Your task to perform on an android device: open app "Yahoo Mail" (install if not already installed) Image 0: 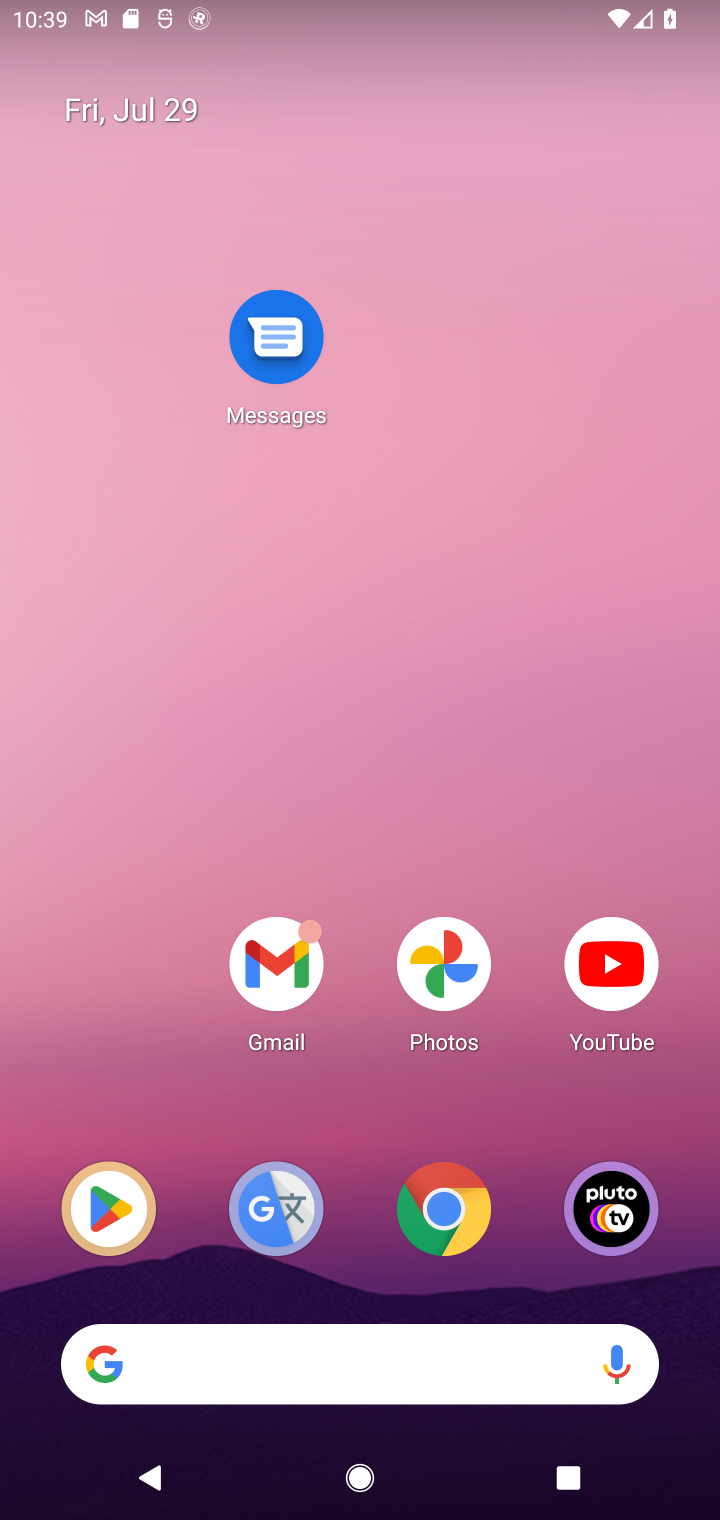
Step 0: drag from (348, 1369) to (553, 131)
Your task to perform on an android device: open app "Yahoo Mail" (install if not already installed) Image 1: 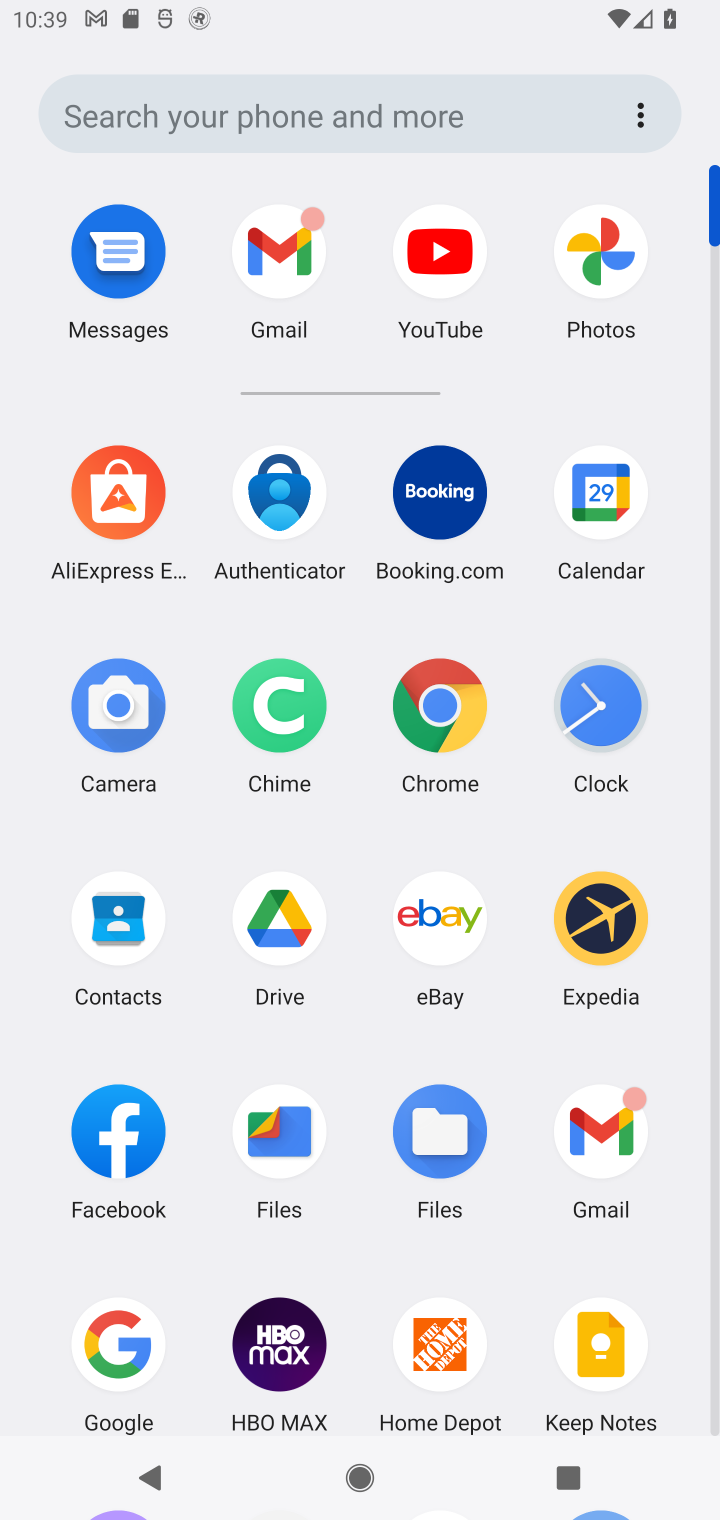
Step 1: drag from (361, 1194) to (425, 253)
Your task to perform on an android device: open app "Yahoo Mail" (install if not already installed) Image 2: 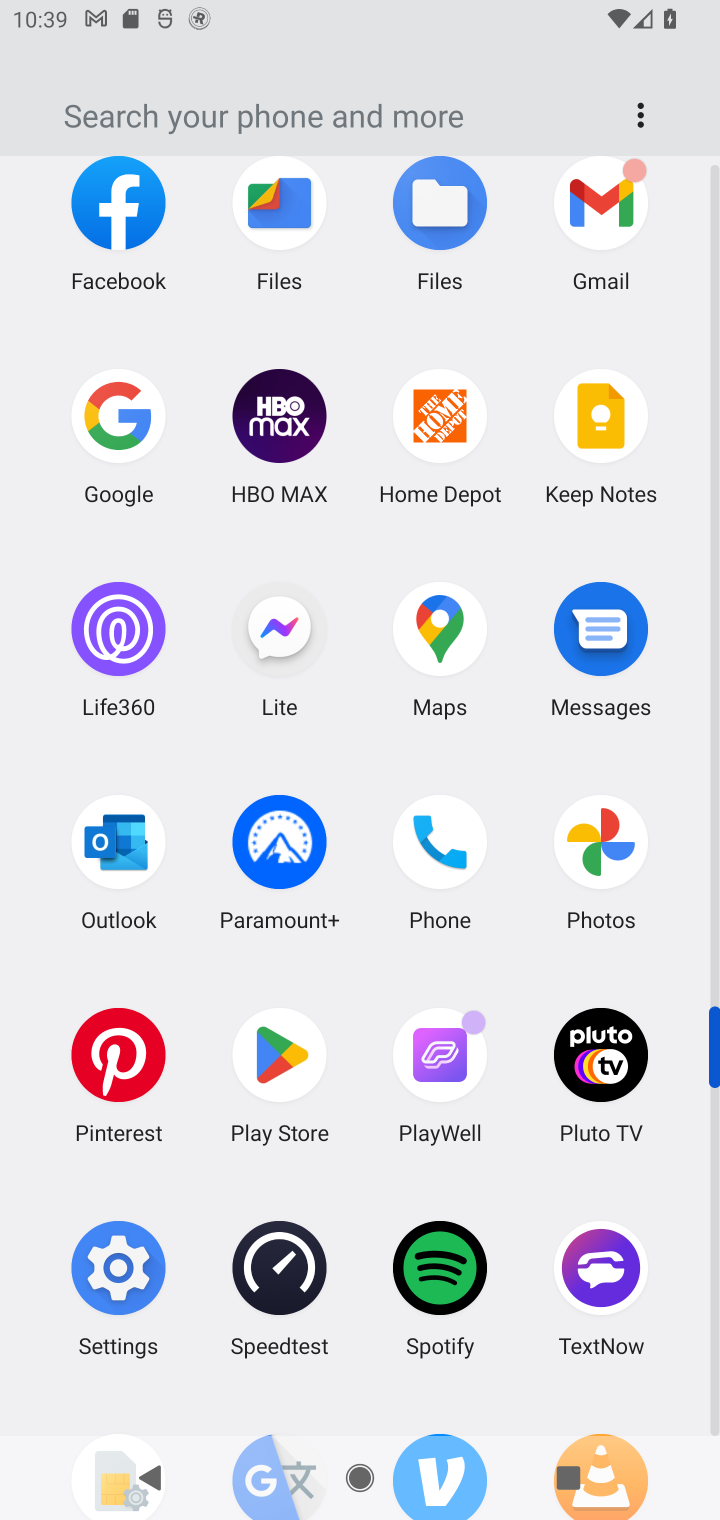
Step 2: click (288, 1064)
Your task to perform on an android device: open app "Yahoo Mail" (install if not already installed) Image 3: 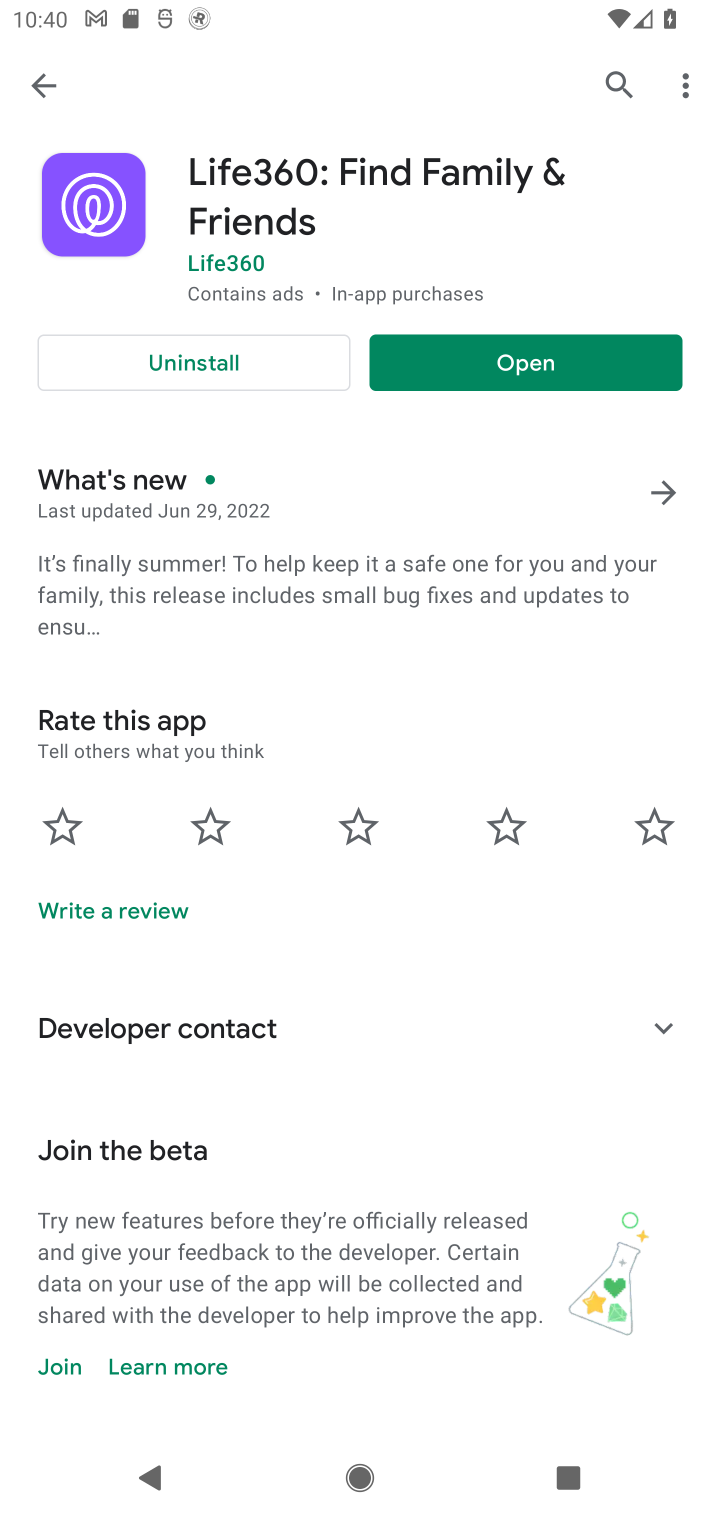
Step 3: click (610, 76)
Your task to perform on an android device: open app "Yahoo Mail" (install if not already installed) Image 4: 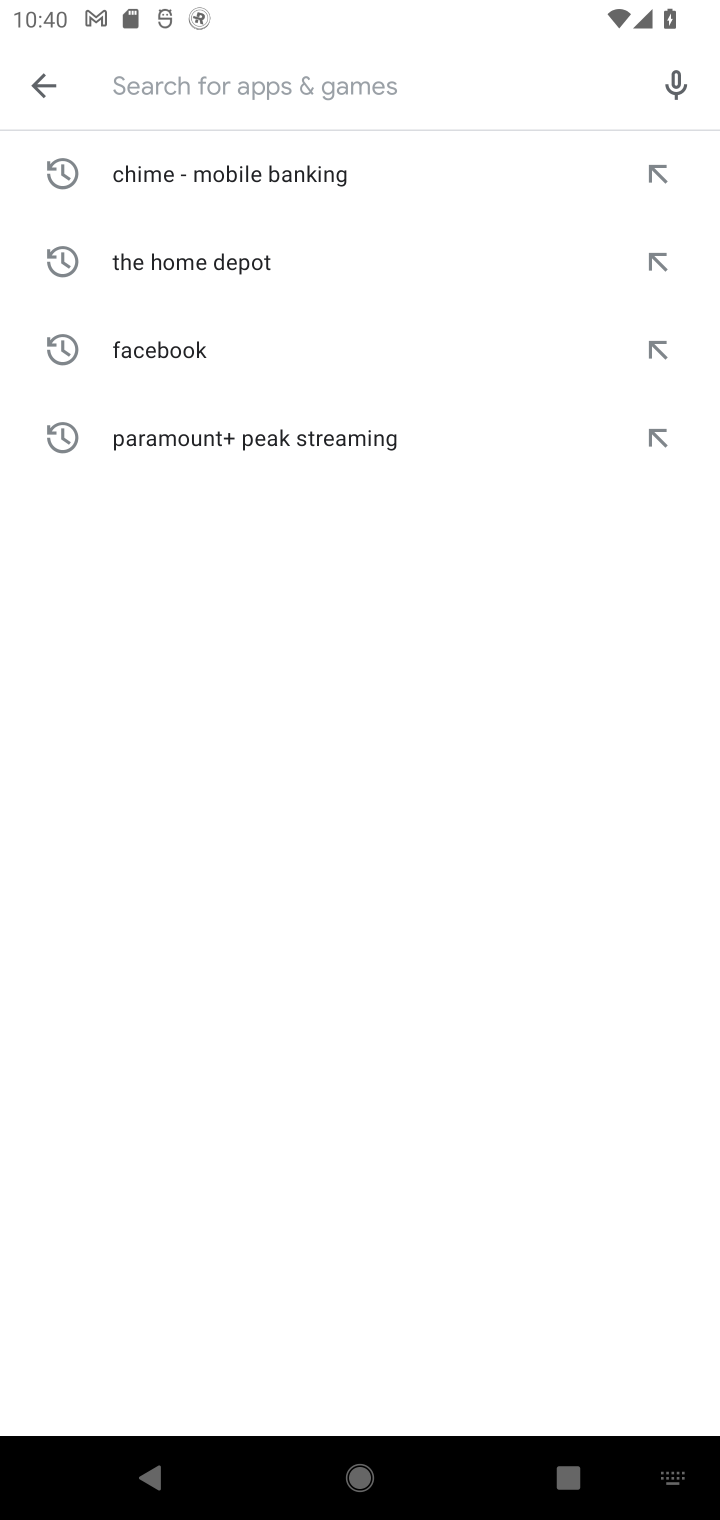
Step 4: type "Yahoo Mail"
Your task to perform on an android device: open app "Yahoo Mail" (install if not already installed) Image 5: 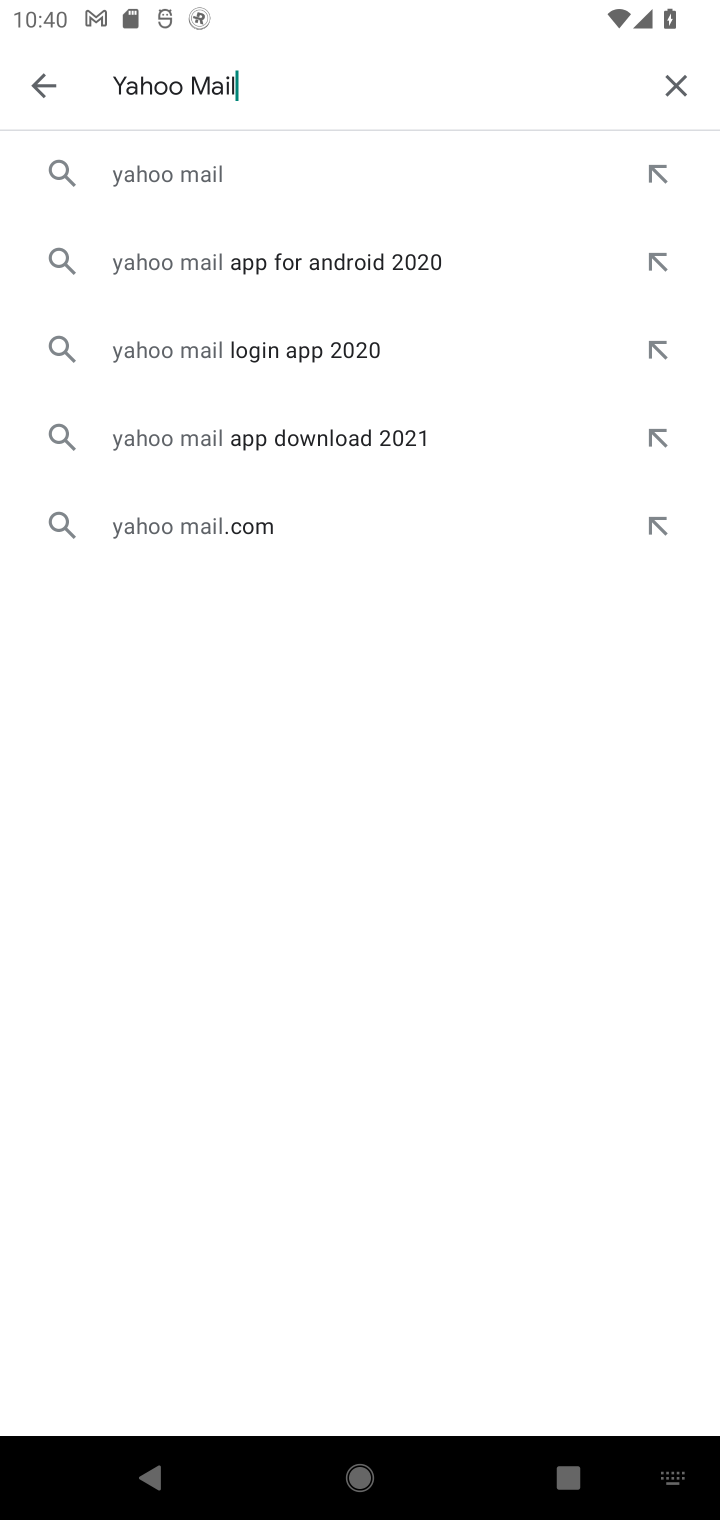
Step 5: click (184, 173)
Your task to perform on an android device: open app "Yahoo Mail" (install if not already installed) Image 6: 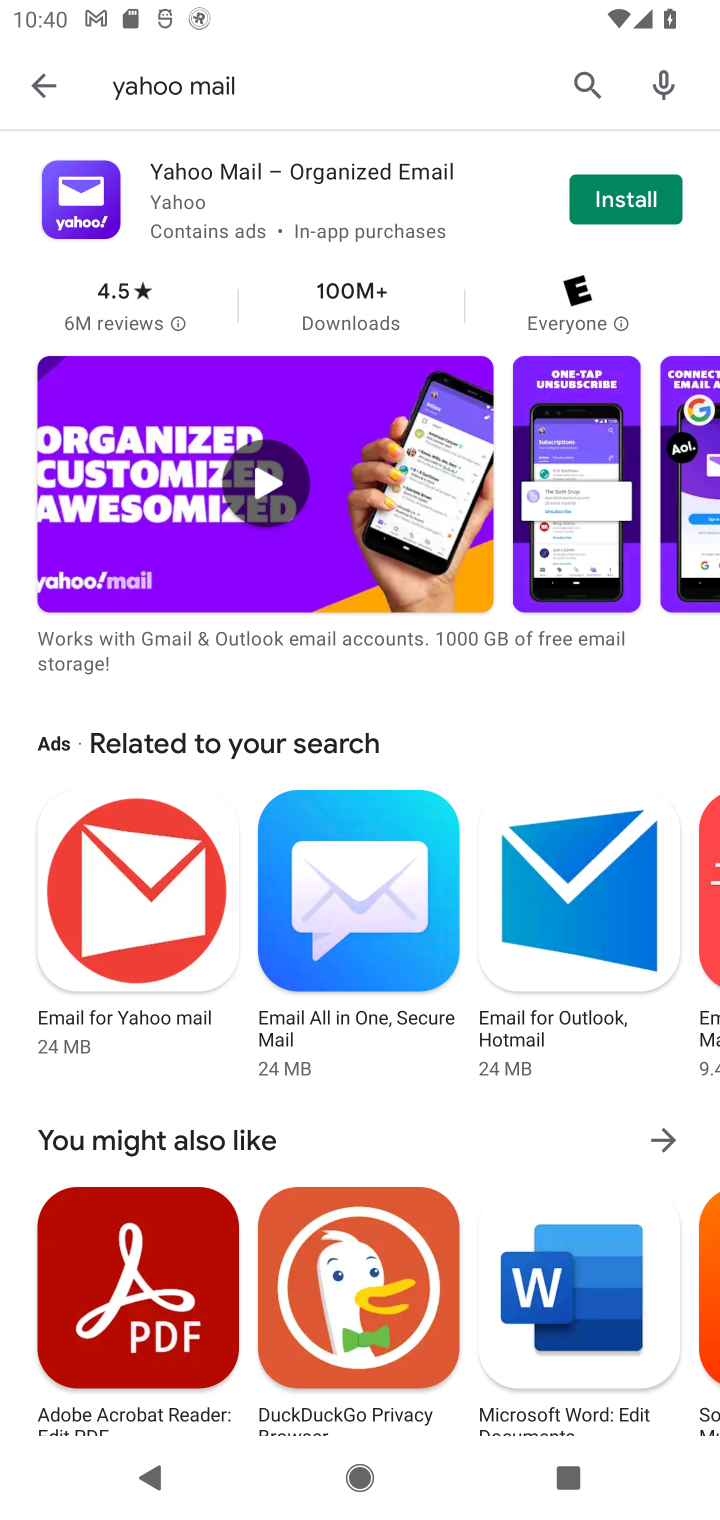
Step 6: click (622, 211)
Your task to perform on an android device: open app "Yahoo Mail" (install if not already installed) Image 7: 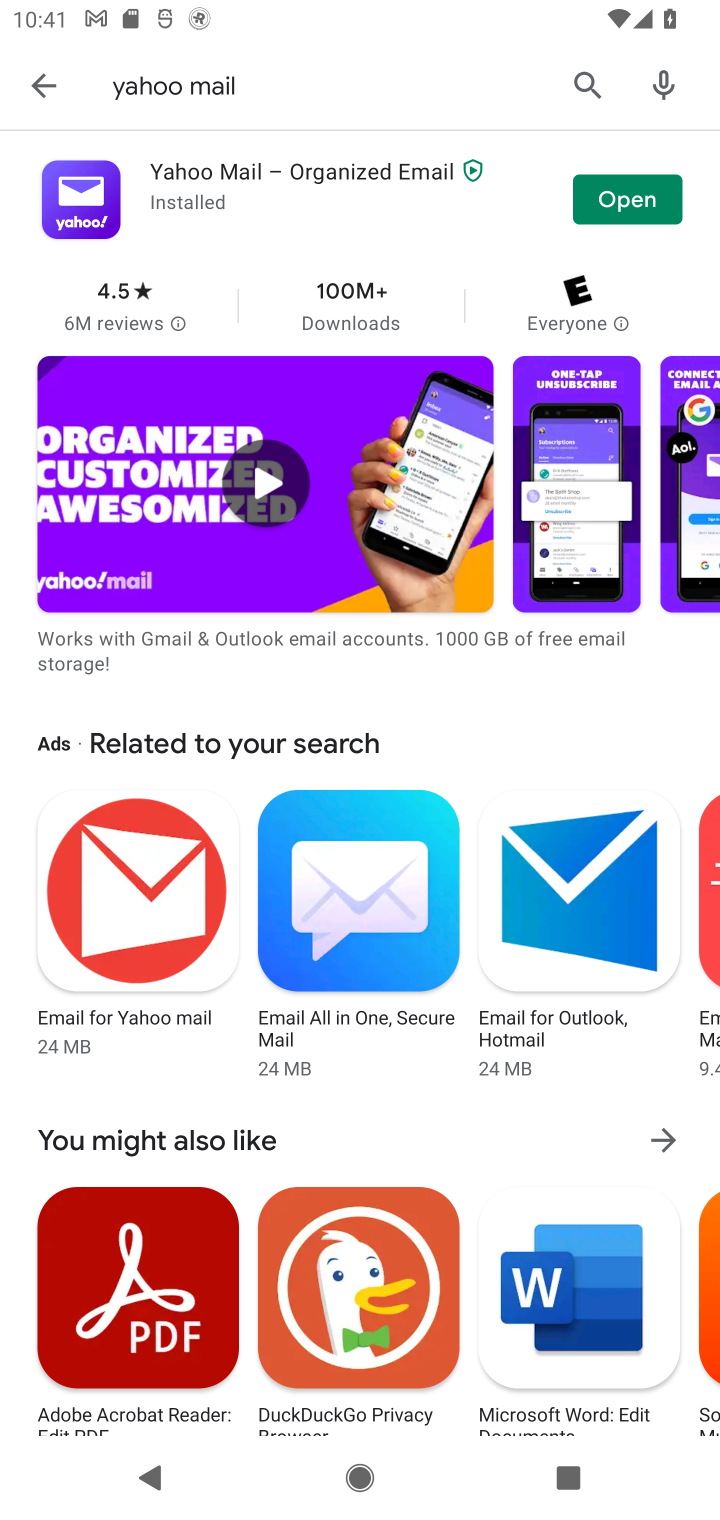
Step 7: click (644, 210)
Your task to perform on an android device: open app "Yahoo Mail" (install if not already installed) Image 8: 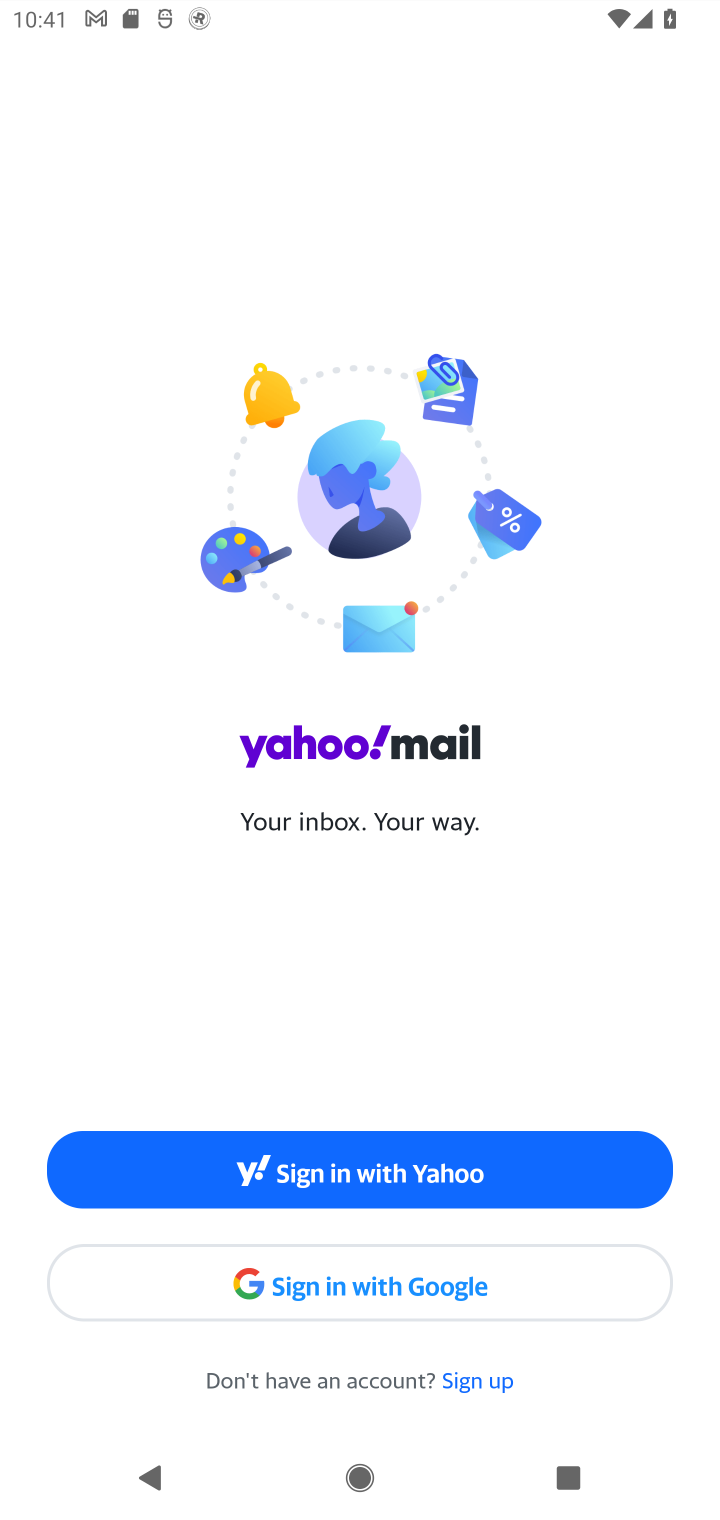
Step 8: task complete